Your task to perform on an android device: Open Chrome and go to settings Image 0: 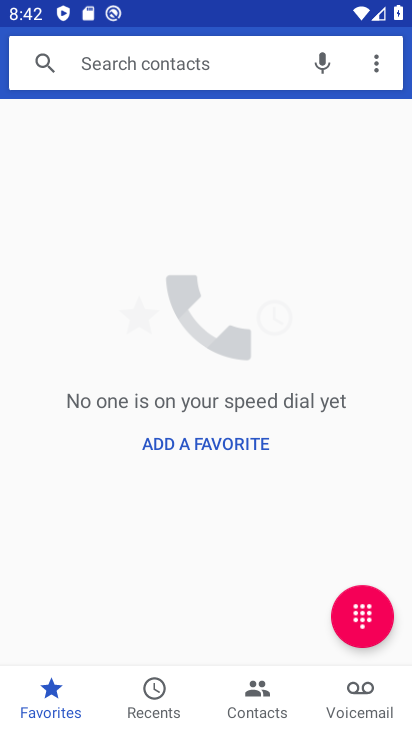
Step 0: press home button
Your task to perform on an android device: Open Chrome and go to settings Image 1: 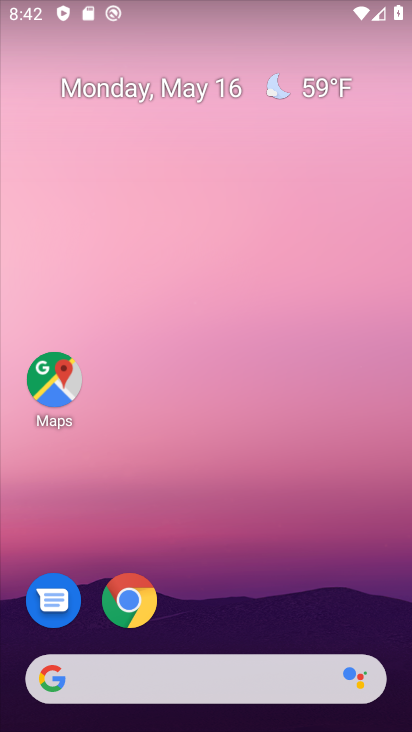
Step 1: click (130, 597)
Your task to perform on an android device: Open Chrome and go to settings Image 2: 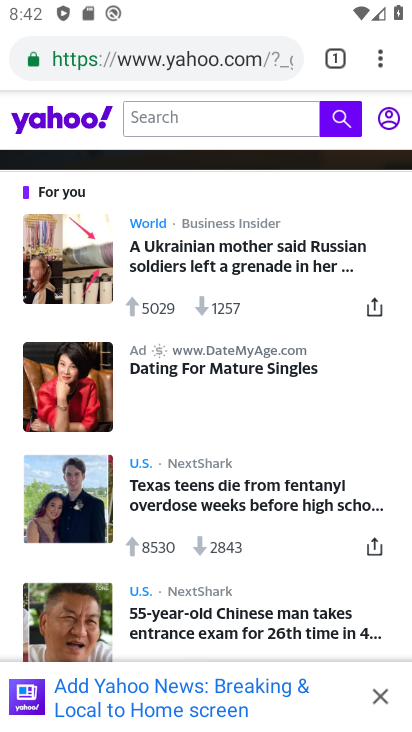
Step 2: click (379, 61)
Your task to perform on an android device: Open Chrome and go to settings Image 3: 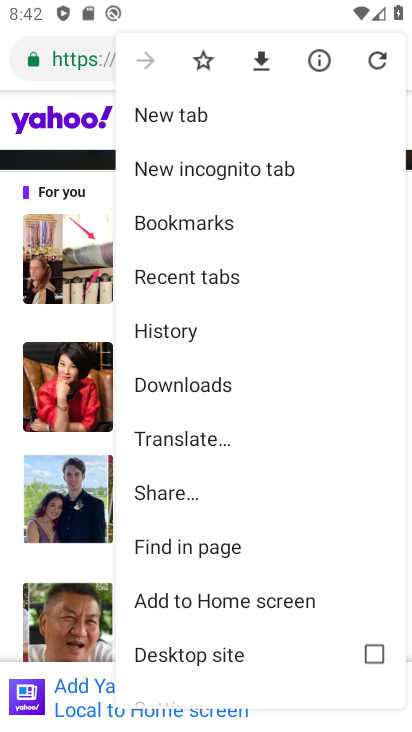
Step 3: drag from (254, 555) to (314, 159)
Your task to perform on an android device: Open Chrome and go to settings Image 4: 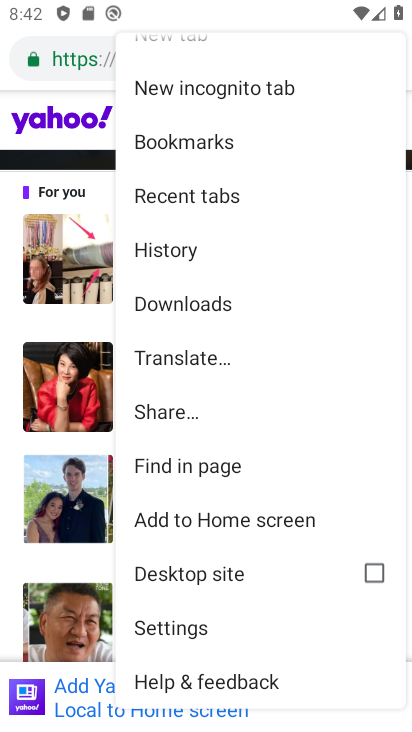
Step 4: click (181, 633)
Your task to perform on an android device: Open Chrome and go to settings Image 5: 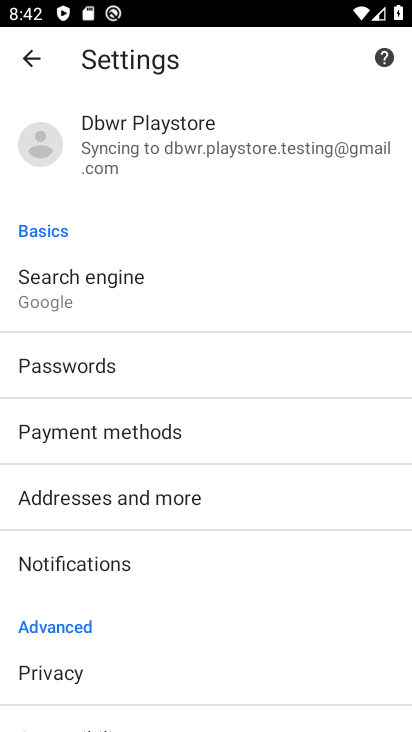
Step 5: task complete